Your task to perform on an android device: Go to Maps Image 0: 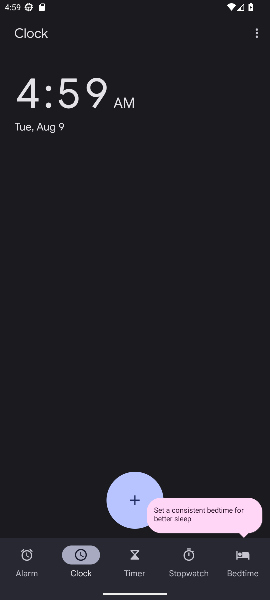
Step 0: press home button
Your task to perform on an android device: Go to Maps Image 1: 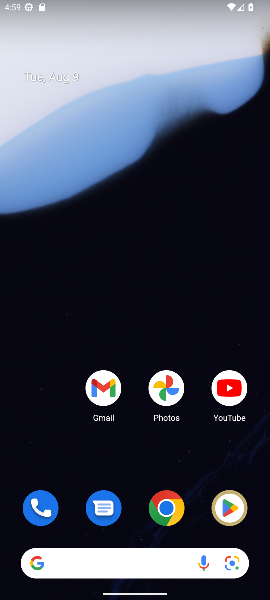
Step 1: drag from (199, 483) to (187, 251)
Your task to perform on an android device: Go to Maps Image 2: 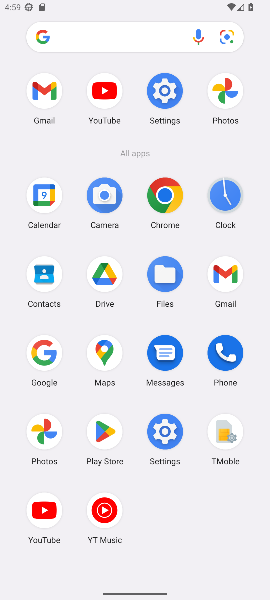
Step 2: click (105, 356)
Your task to perform on an android device: Go to Maps Image 3: 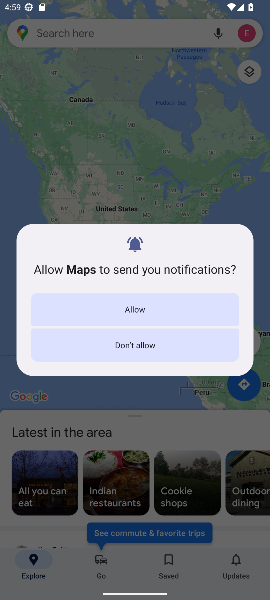
Step 3: click (154, 310)
Your task to perform on an android device: Go to Maps Image 4: 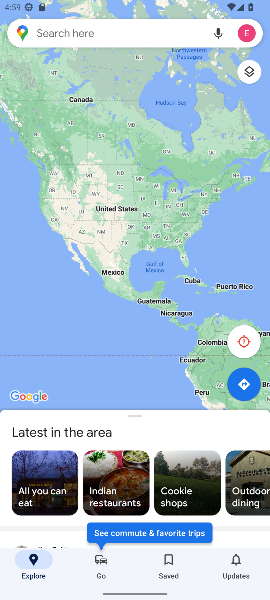
Step 4: task complete